Your task to perform on an android device: Show me the alarms in the clock app Image 0: 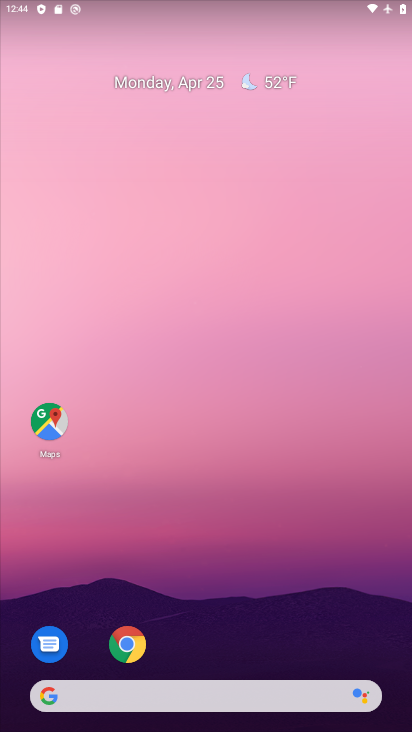
Step 0: drag from (285, 643) to (146, 171)
Your task to perform on an android device: Show me the alarms in the clock app Image 1: 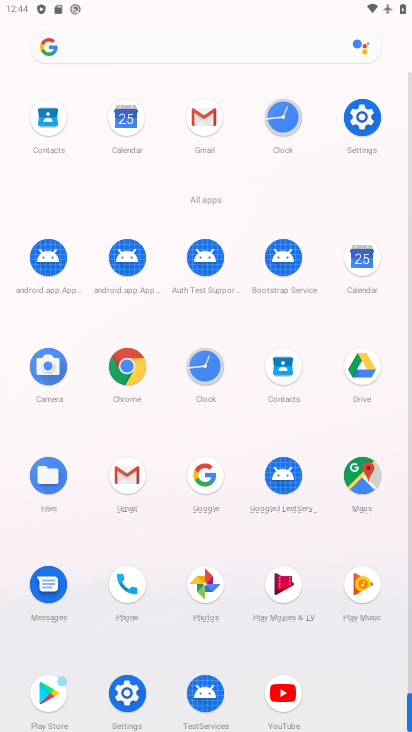
Step 1: click (292, 144)
Your task to perform on an android device: Show me the alarms in the clock app Image 2: 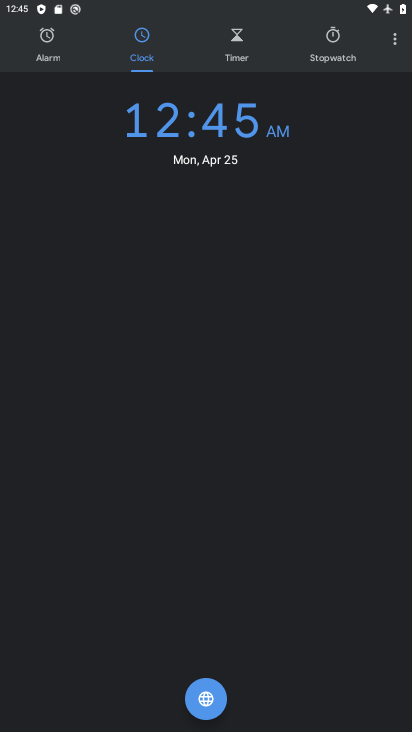
Step 2: click (395, 48)
Your task to perform on an android device: Show me the alarms in the clock app Image 3: 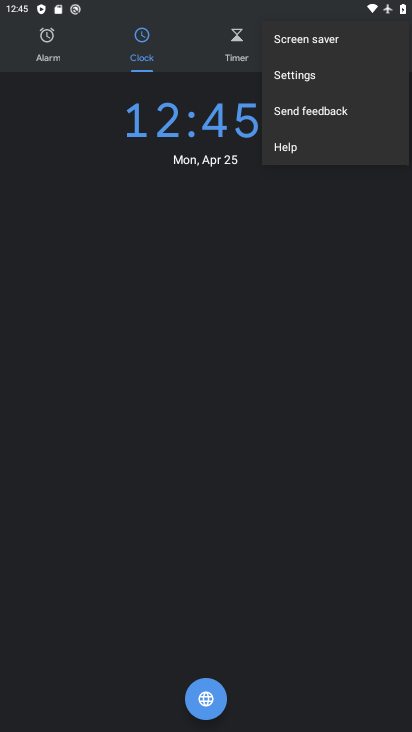
Step 3: click (347, 77)
Your task to perform on an android device: Show me the alarms in the clock app Image 4: 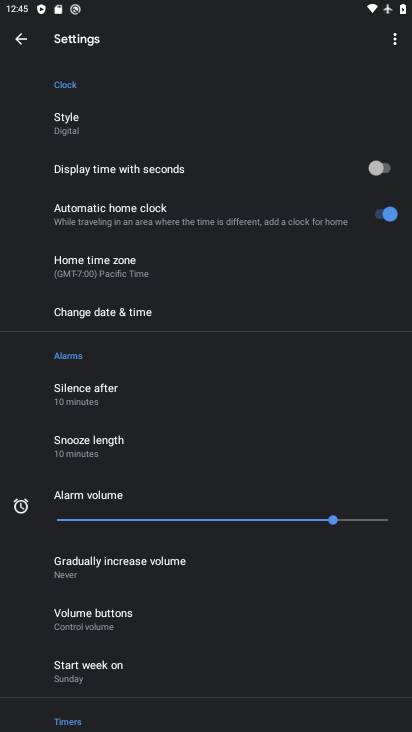
Step 4: task complete